Your task to perform on an android device: set the timer Image 0: 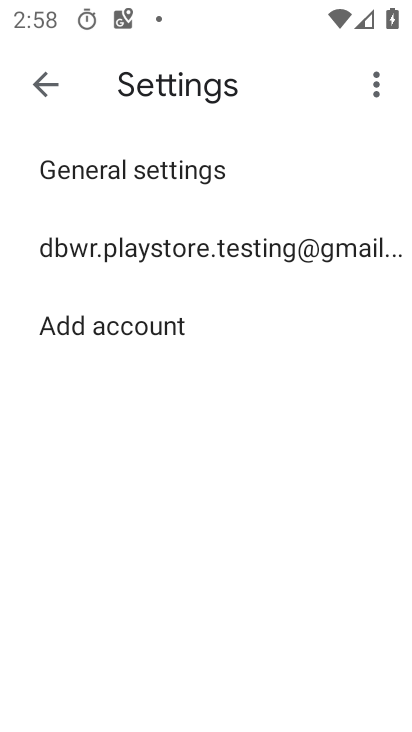
Step 0: press home button
Your task to perform on an android device: set the timer Image 1: 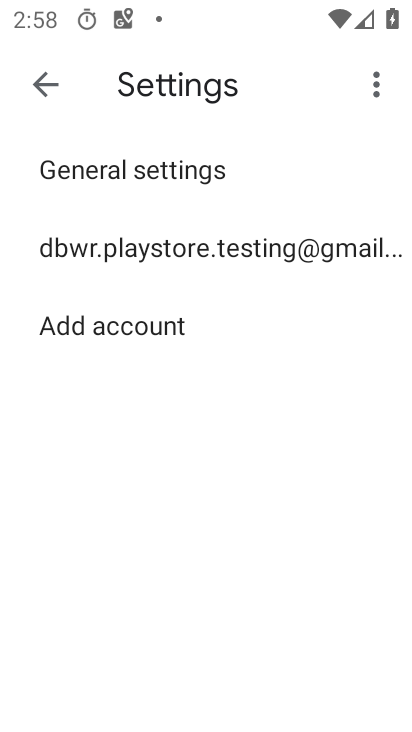
Step 1: press home button
Your task to perform on an android device: set the timer Image 2: 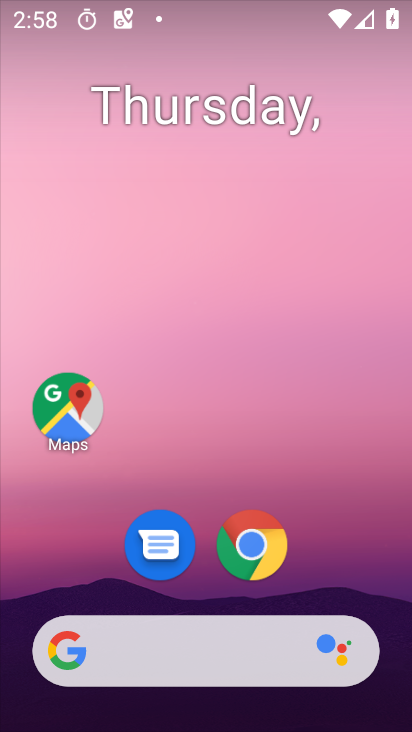
Step 2: drag from (211, 727) to (232, 67)
Your task to perform on an android device: set the timer Image 3: 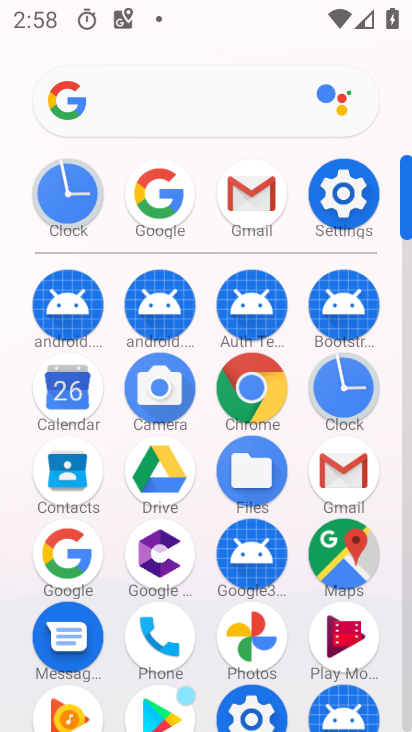
Step 3: click (338, 392)
Your task to perform on an android device: set the timer Image 4: 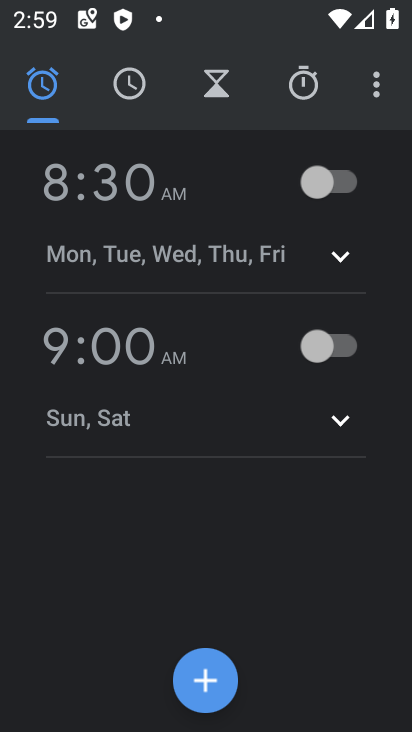
Step 4: click (221, 84)
Your task to perform on an android device: set the timer Image 5: 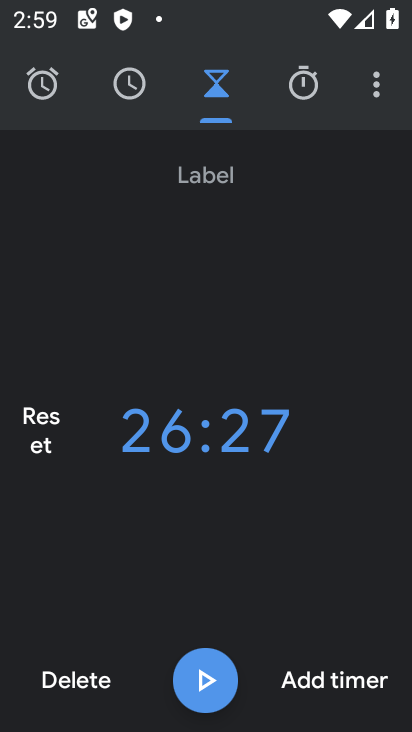
Step 5: click (318, 675)
Your task to perform on an android device: set the timer Image 6: 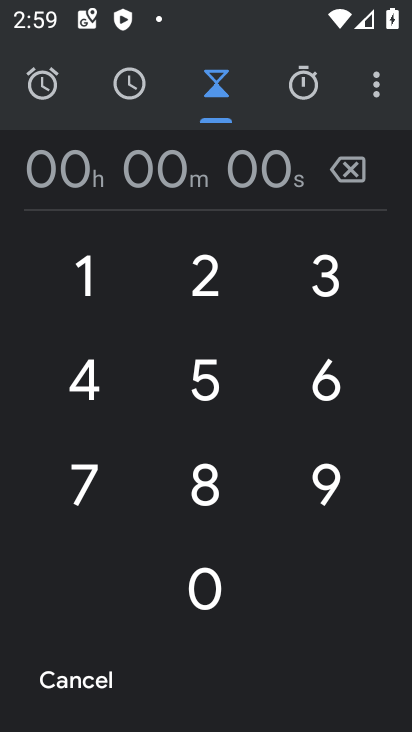
Step 6: click (200, 288)
Your task to perform on an android device: set the timer Image 7: 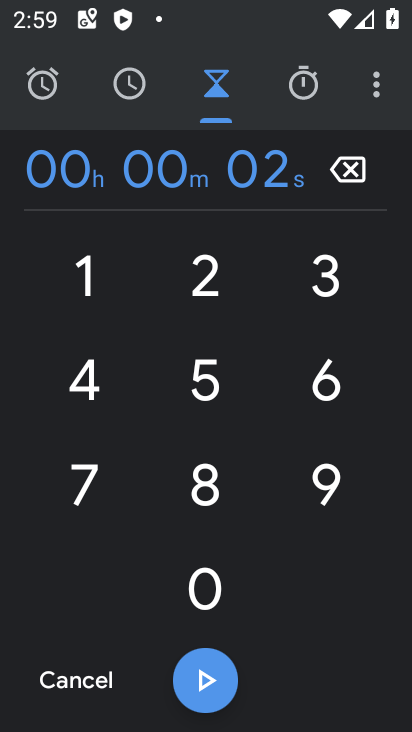
Step 7: click (87, 380)
Your task to perform on an android device: set the timer Image 8: 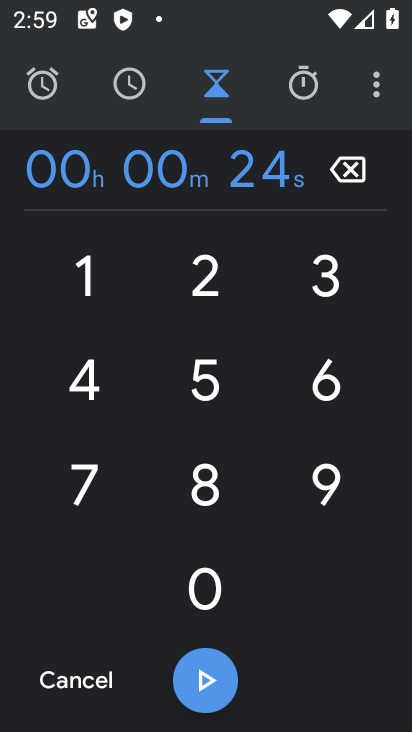
Step 8: click (210, 386)
Your task to perform on an android device: set the timer Image 9: 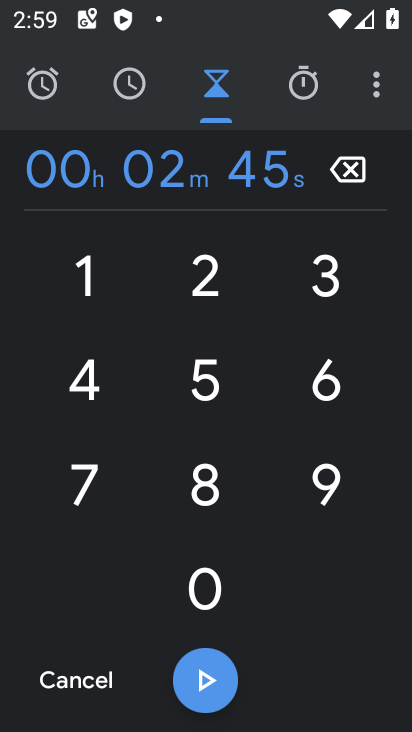
Step 9: click (201, 678)
Your task to perform on an android device: set the timer Image 10: 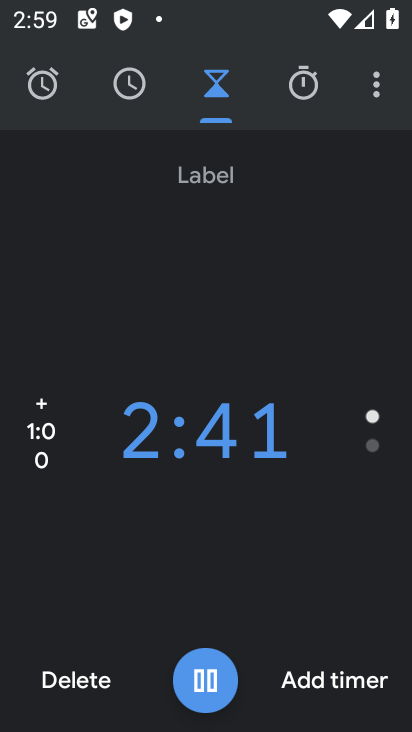
Step 10: task complete